Your task to perform on an android device: Check my gmail Image 0: 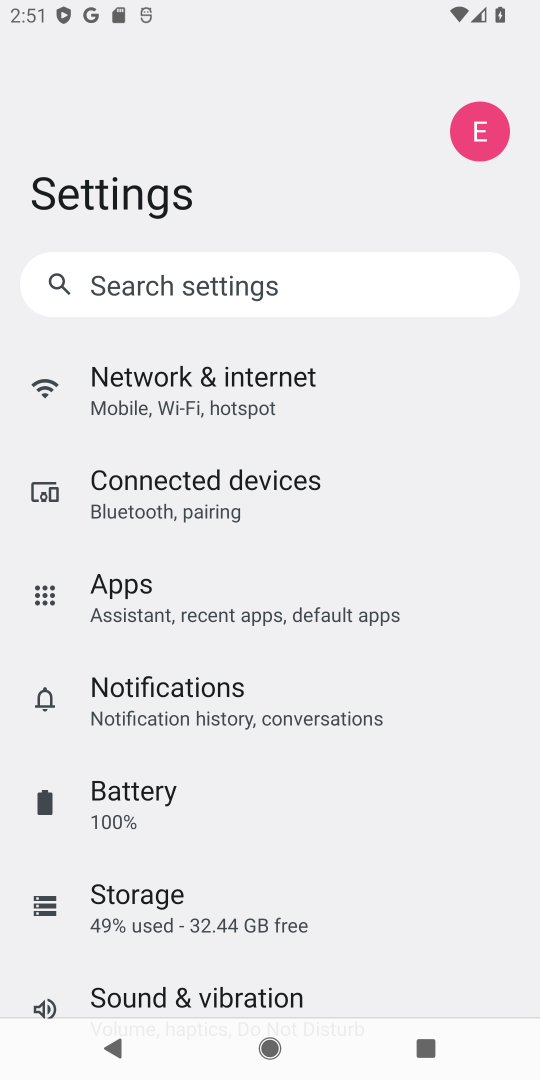
Step 0: press home button
Your task to perform on an android device: Check my gmail Image 1: 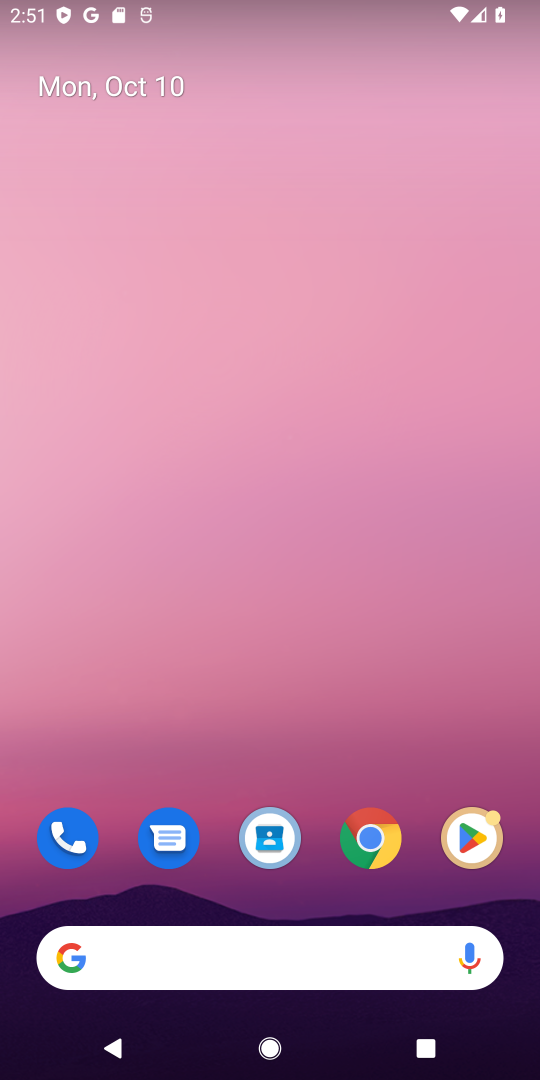
Step 1: drag from (266, 730) to (320, 133)
Your task to perform on an android device: Check my gmail Image 2: 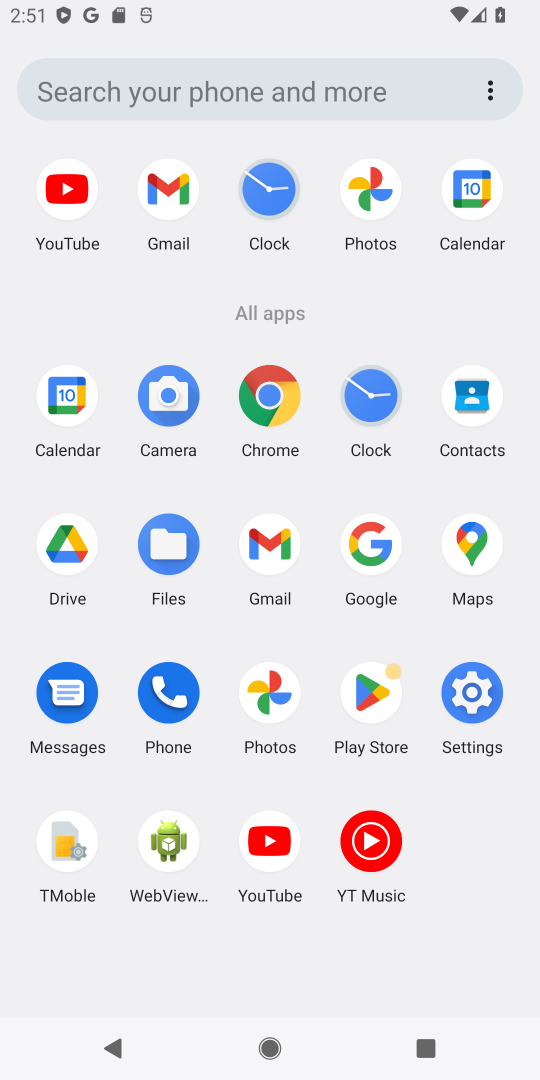
Step 2: click (274, 519)
Your task to perform on an android device: Check my gmail Image 3: 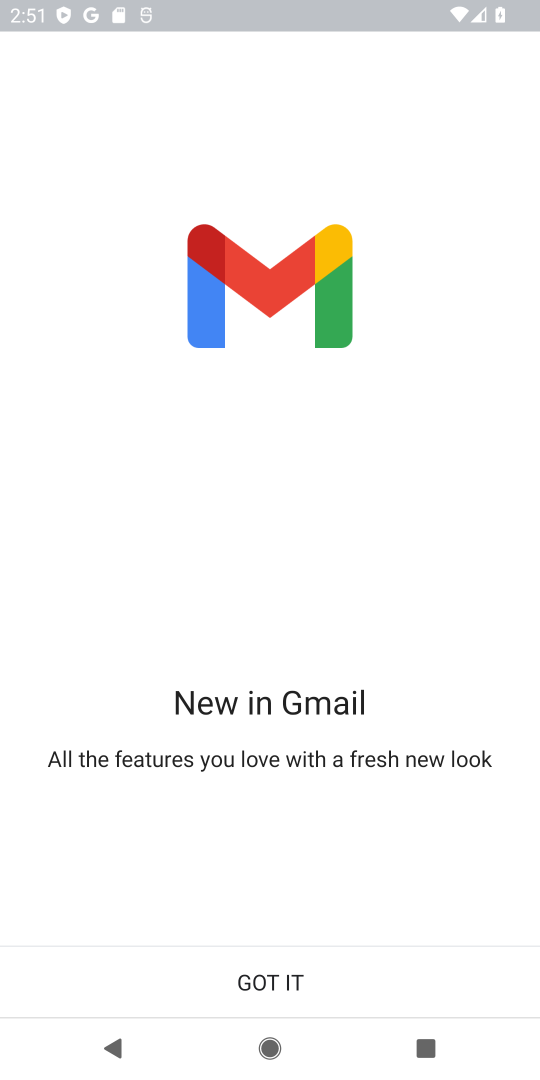
Step 3: click (293, 972)
Your task to perform on an android device: Check my gmail Image 4: 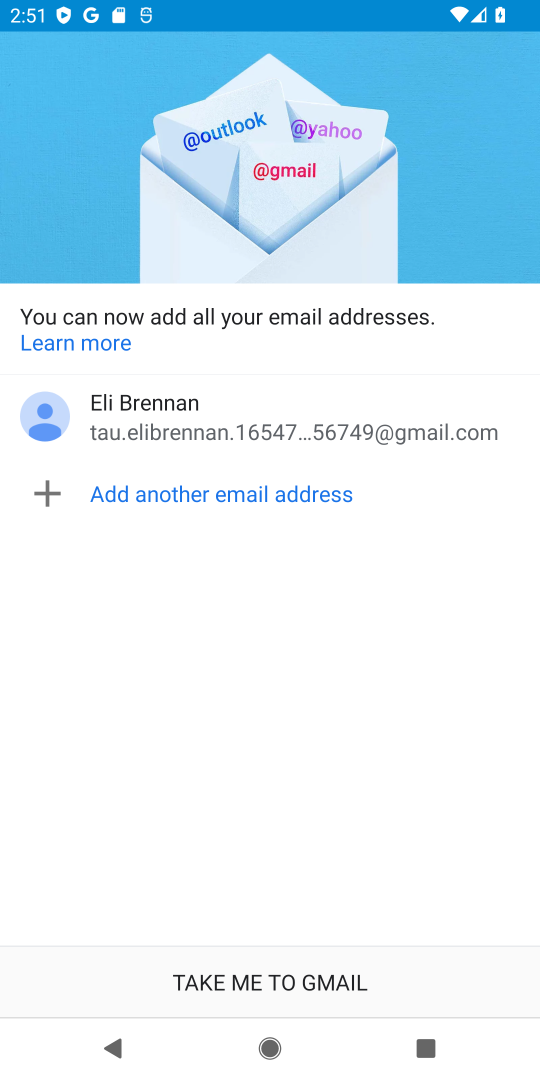
Step 4: click (342, 1001)
Your task to perform on an android device: Check my gmail Image 5: 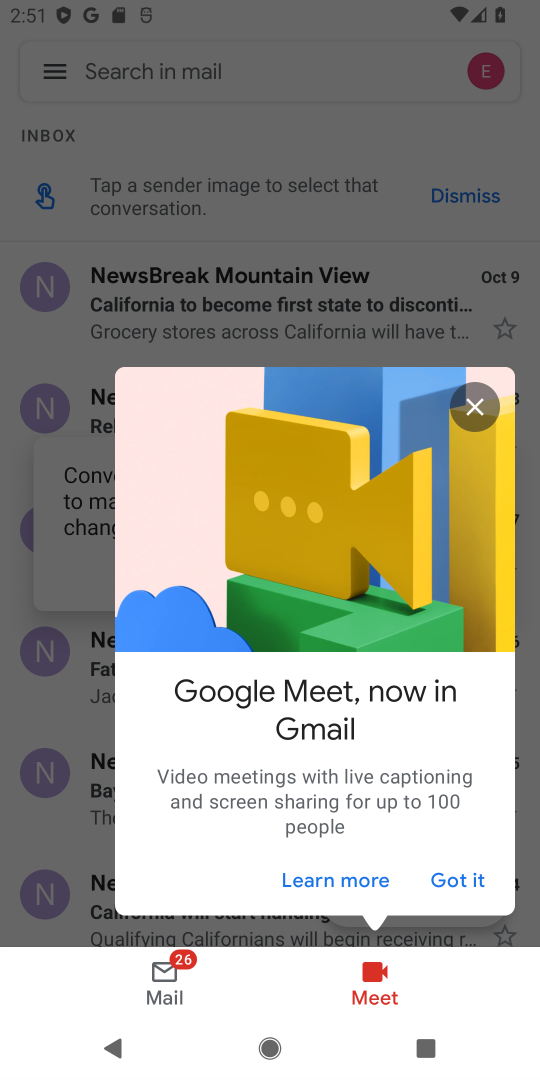
Step 5: click (469, 878)
Your task to perform on an android device: Check my gmail Image 6: 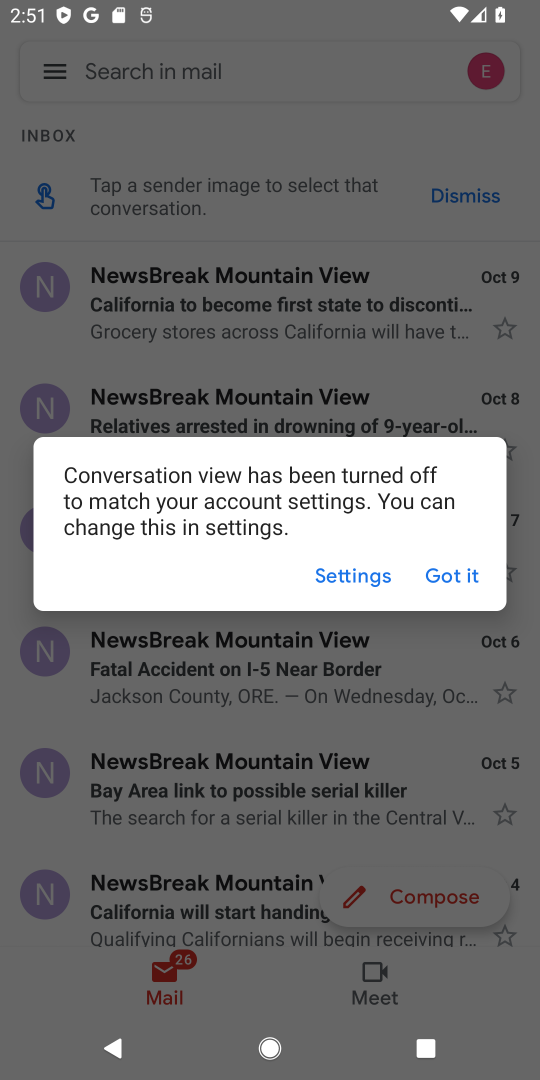
Step 6: click (444, 564)
Your task to perform on an android device: Check my gmail Image 7: 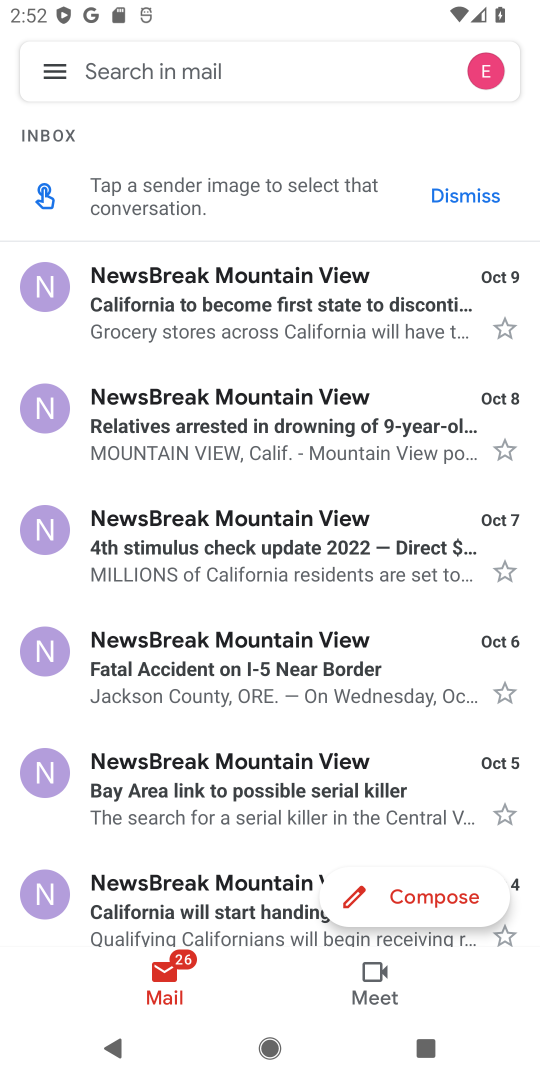
Step 7: drag from (282, 826) to (278, 743)
Your task to perform on an android device: Check my gmail Image 8: 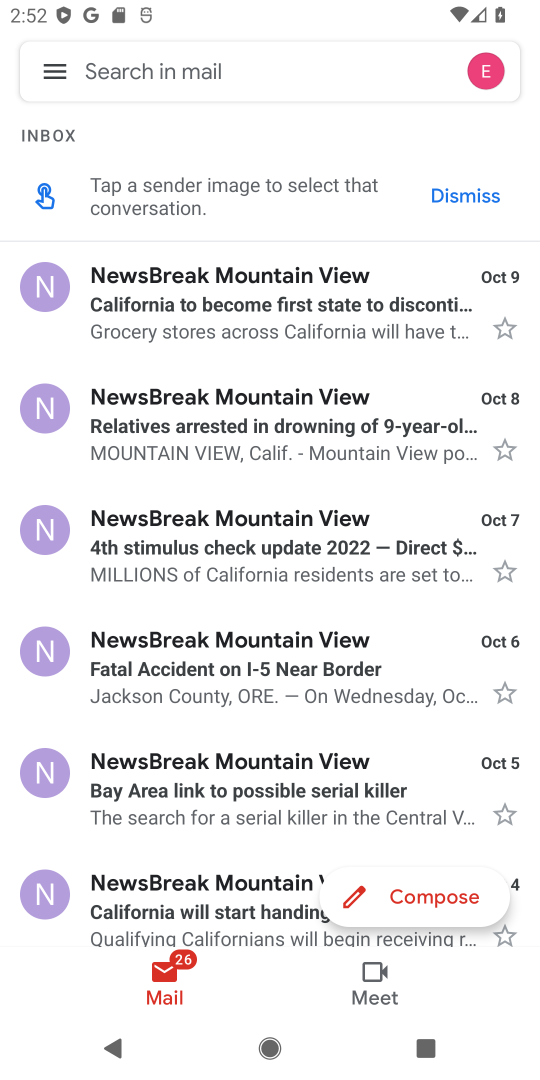
Step 8: drag from (256, 726) to (261, 322)
Your task to perform on an android device: Check my gmail Image 9: 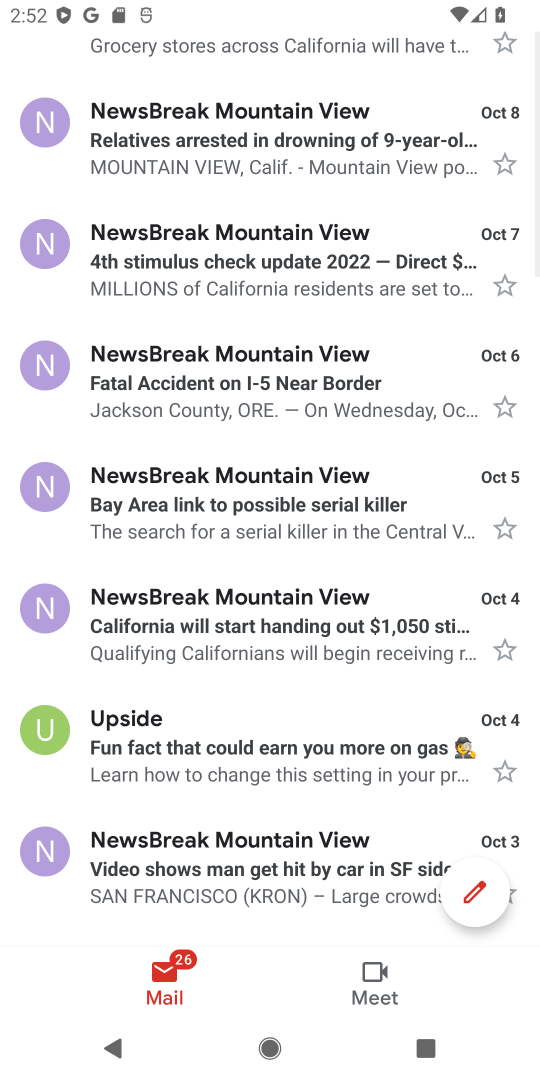
Step 9: drag from (289, 775) to (294, 319)
Your task to perform on an android device: Check my gmail Image 10: 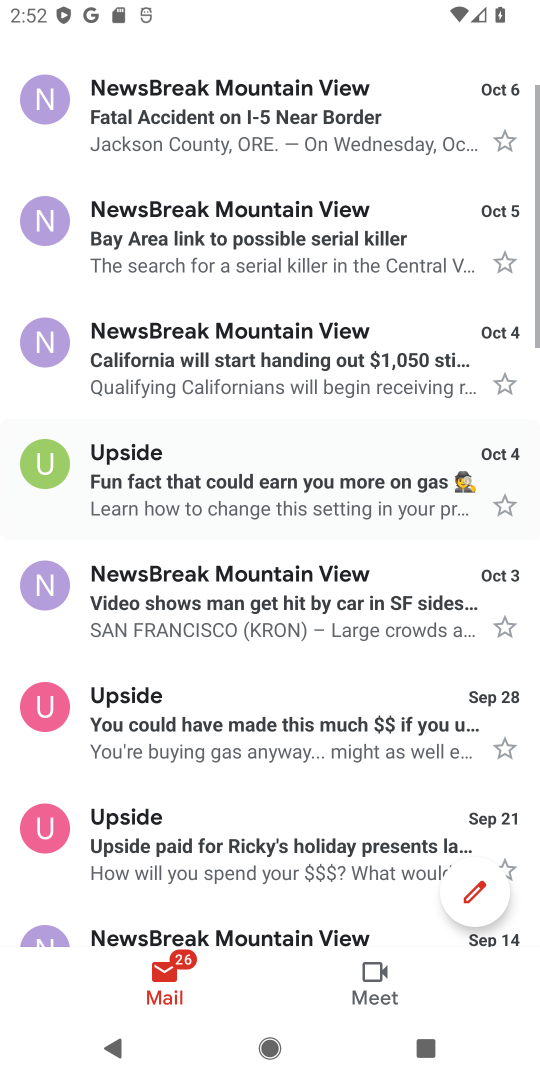
Step 10: drag from (265, 797) to (253, 344)
Your task to perform on an android device: Check my gmail Image 11: 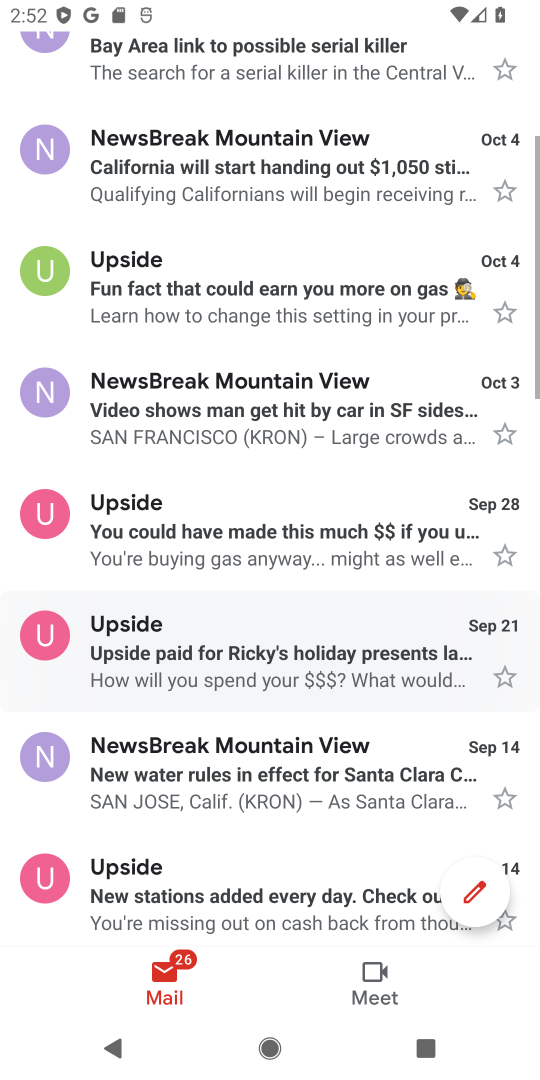
Step 11: drag from (232, 818) to (256, 326)
Your task to perform on an android device: Check my gmail Image 12: 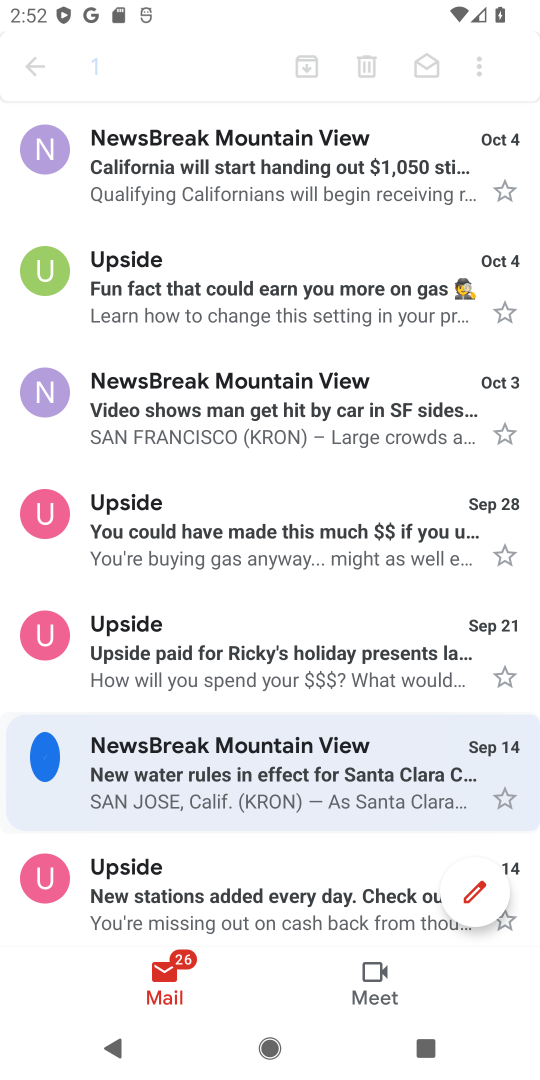
Step 12: drag from (275, 826) to (328, 309)
Your task to perform on an android device: Check my gmail Image 13: 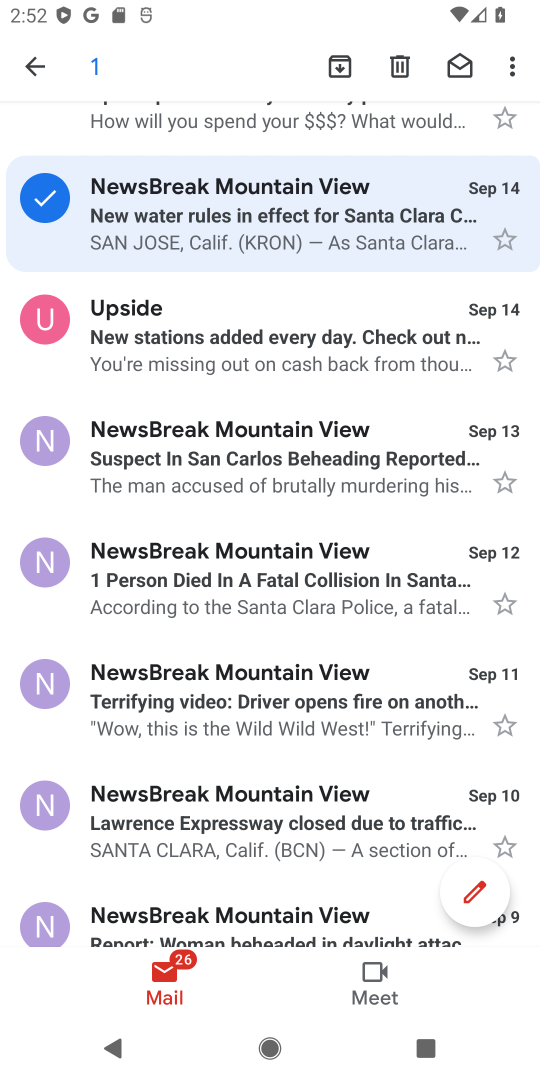
Step 13: click (60, 202)
Your task to perform on an android device: Check my gmail Image 14: 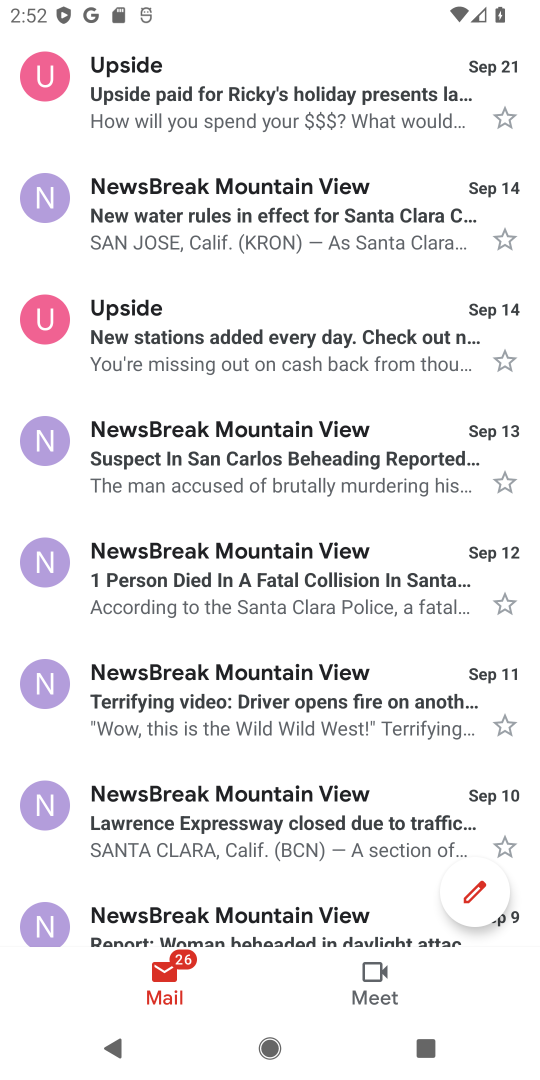
Step 14: task complete